Your task to perform on an android device: turn on the 12-hour format for clock Image 0: 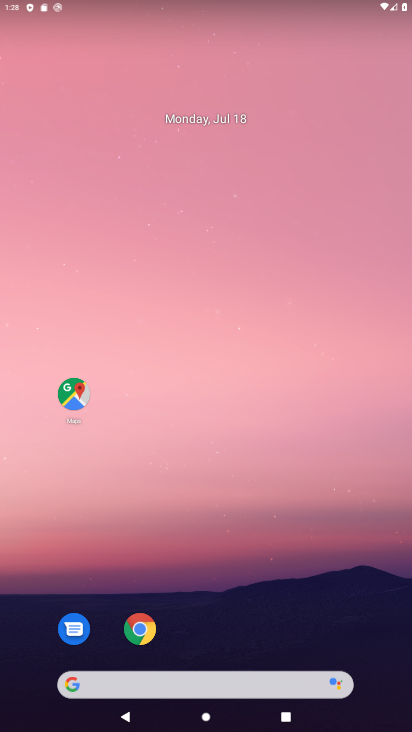
Step 0: drag from (220, 612) to (222, 300)
Your task to perform on an android device: turn on the 12-hour format for clock Image 1: 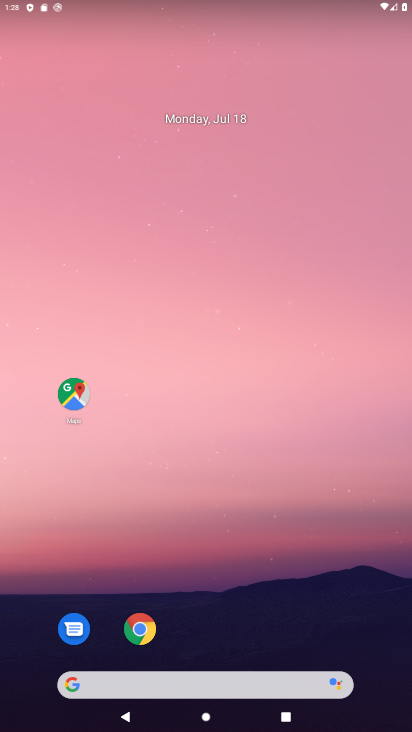
Step 1: drag from (279, 622) to (255, 95)
Your task to perform on an android device: turn on the 12-hour format for clock Image 2: 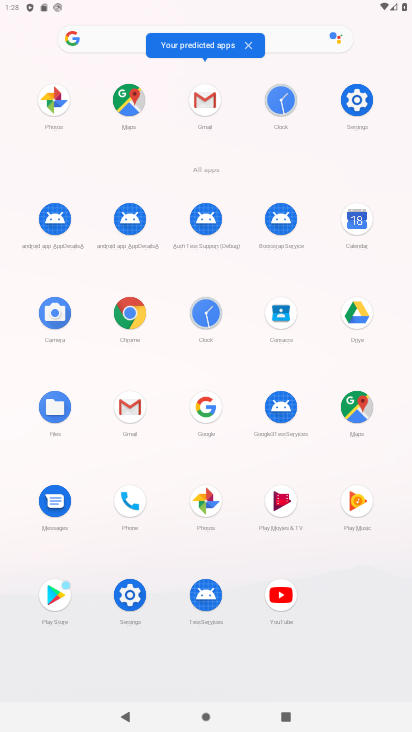
Step 2: click (281, 86)
Your task to perform on an android device: turn on the 12-hour format for clock Image 3: 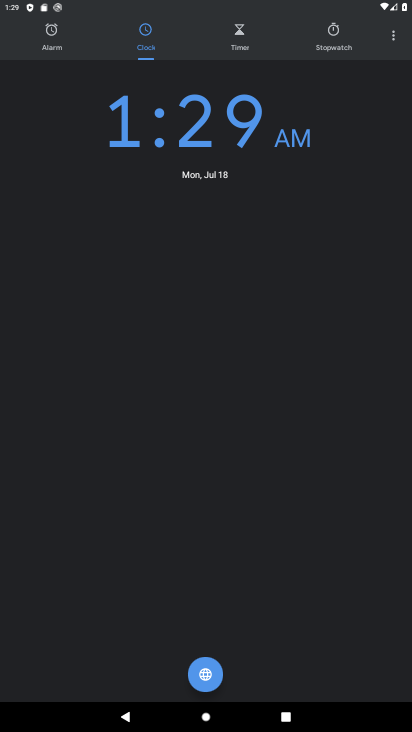
Step 3: click (388, 38)
Your task to perform on an android device: turn on the 12-hour format for clock Image 4: 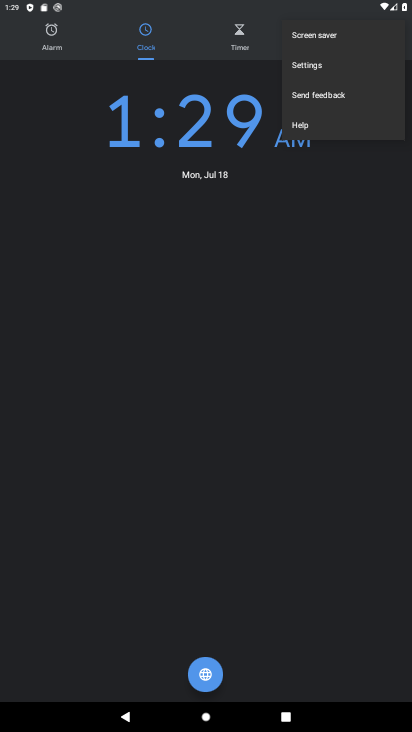
Step 4: click (320, 71)
Your task to perform on an android device: turn on the 12-hour format for clock Image 5: 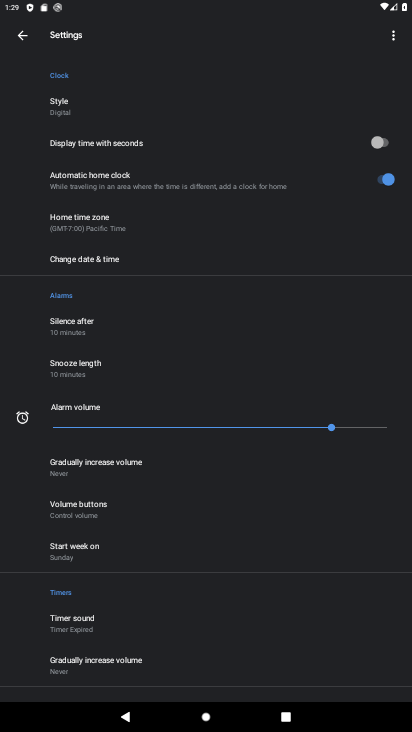
Step 5: click (107, 256)
Your task to perform on an android device: turn on the 12-hour format for clock Image 6: 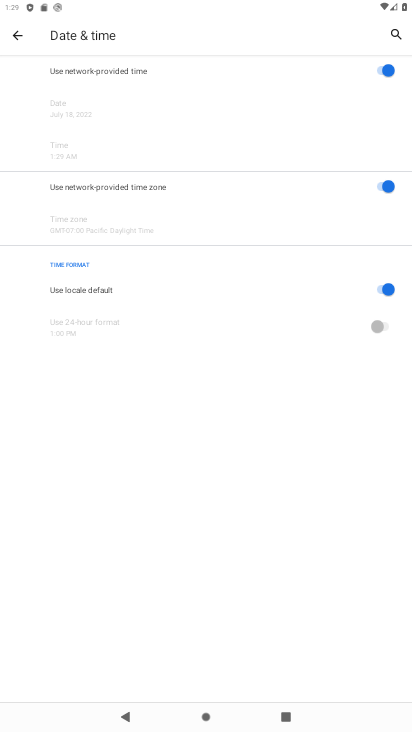
Step 6: task complete